Your task to perform on an android device: toggle priority inbox in the gmail app Image 0: 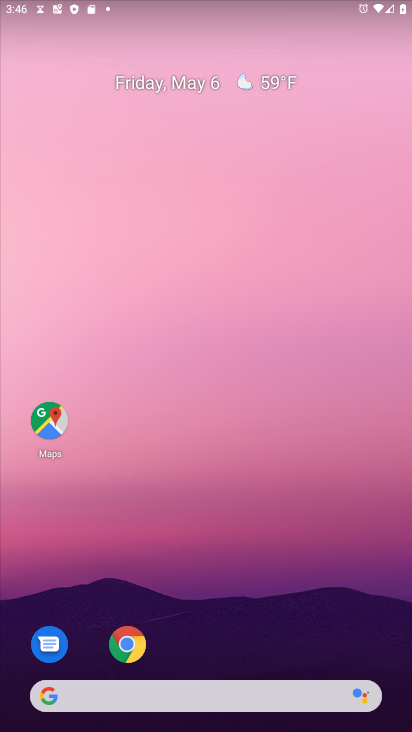
Step 0: drag from (265, 616) to (220, 6)
Your task to perform on an android device: toggle priority inbox in the gmail app Image 1: 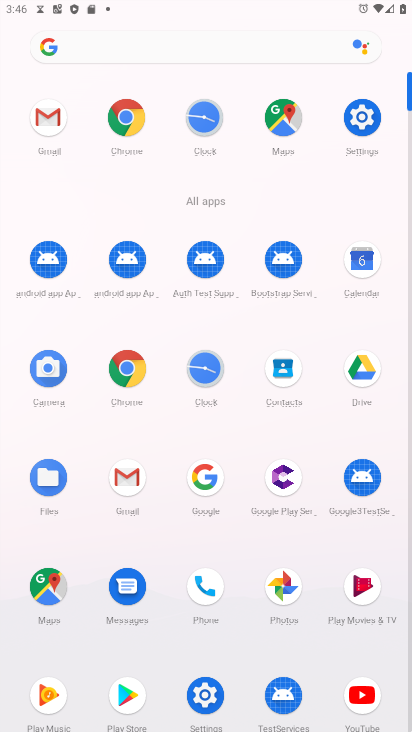
Step 1: click (51, 116)
Your task to perform on an android device: toggle priority inbox in the gmail app Image 2: 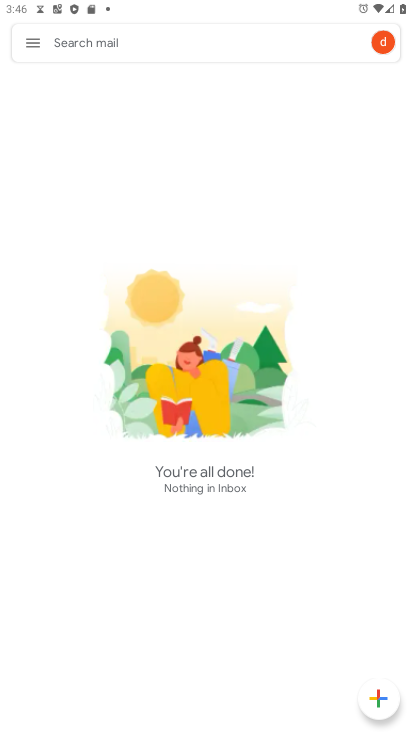
Step 2: click (40, 47)
Your task to perform on an android device: toggle priority inbox in the gmail app Image 3: 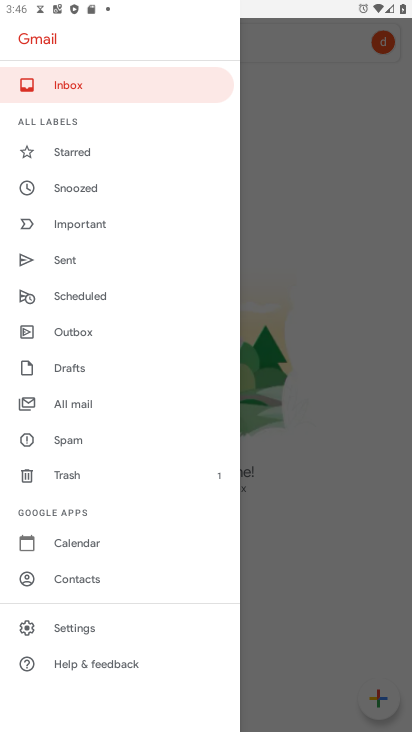
Step 3: click (89, 623)
Your task to perform on an android device: toggle priority inbox in the gmail app Image 4: 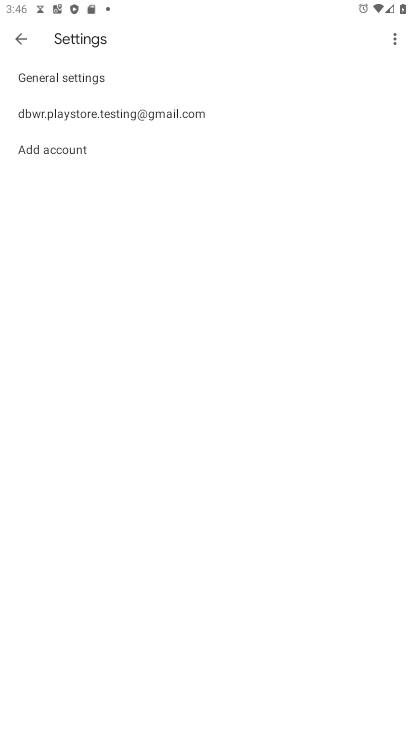
Step 4: click (47, 112)
Your task to perform on an android device: toggle priority inbox in the gmail app Image 5: 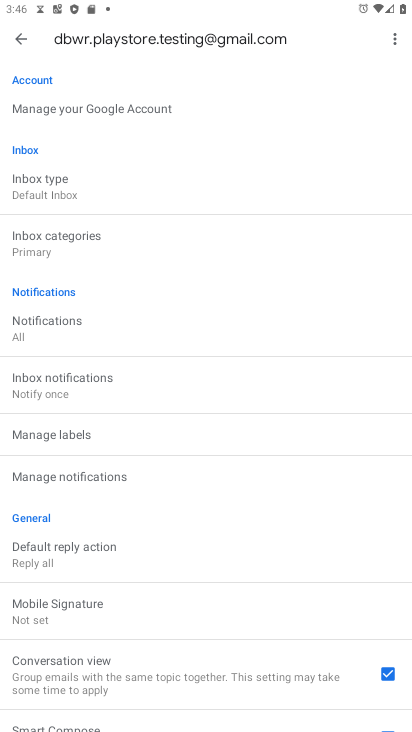
Step 5: click (60, 184)
Your task to perform on an android device: toggle priority inbox in the gmail app Image 6: 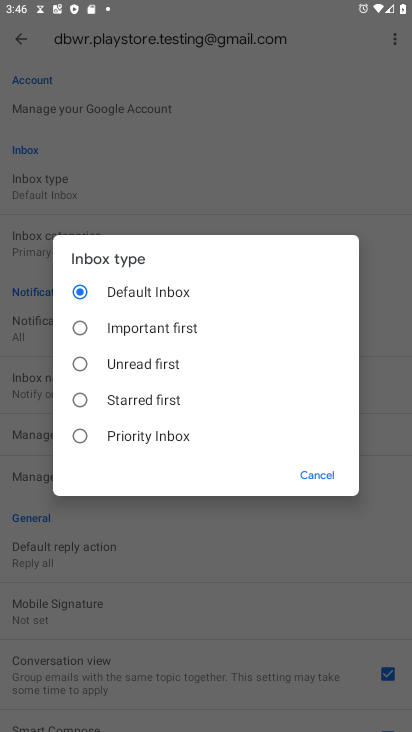
Step 6: click (80, 435)
Your task to perform on an android device: toggle priority inbox in the gmail app Image 7: 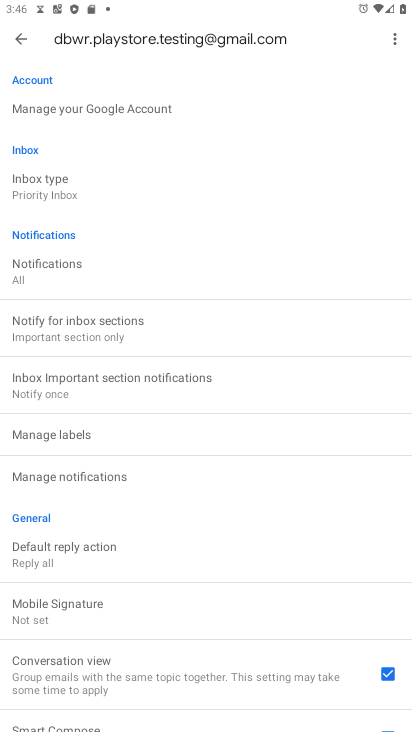
Step 7: task complete